Your task to perform on an android device: Go to Maps Image 0: 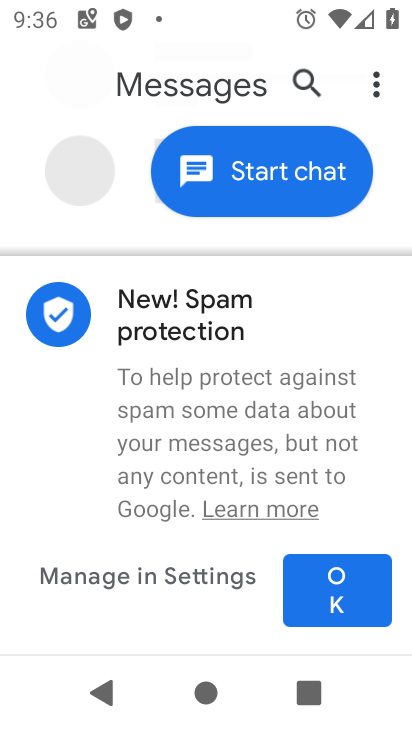
Step 0: press home button
Your task to perform on an android device: Go to Maps Image 1: 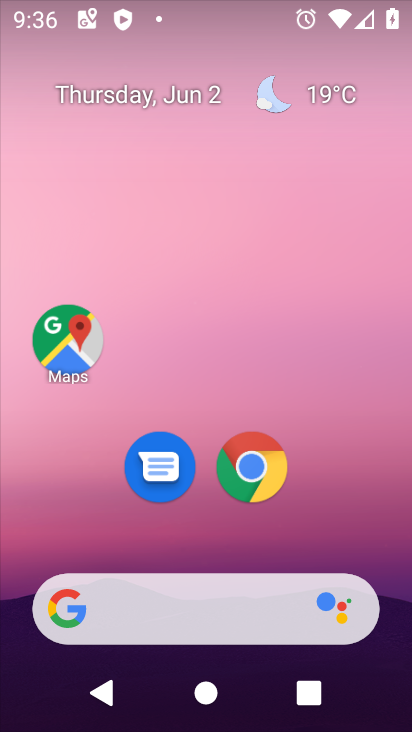
Step 1: click (72, 354)
Your task to perform on an android device: Go to Maps Image 2: 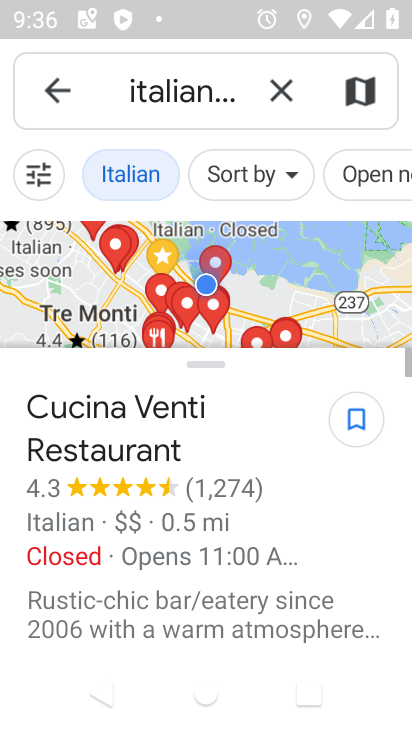
Step 2: task complete